Your task to perform on an android device: Do I have any events this weekend? Image 0: 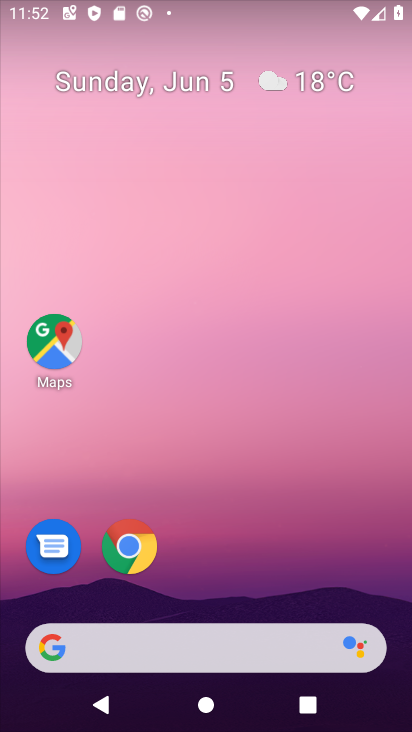
Step 0: drag from (245, 580) to (202, 89)
Your task to perform on an android device: Do I have any events this weekend? Image 1: 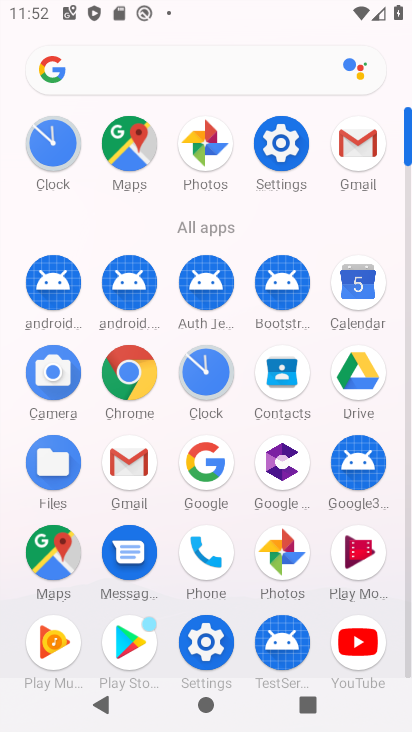
Step 1: click (356, 292)
Your task to perform on an android device: Do I have any events this weekend? Image 2: 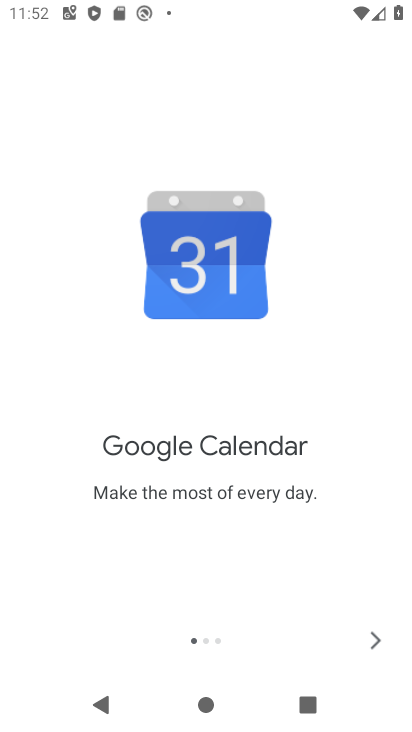
Step 2: click (373, 646)
Your task to perform on an android device: Do I have any events this weekend? Image 3: 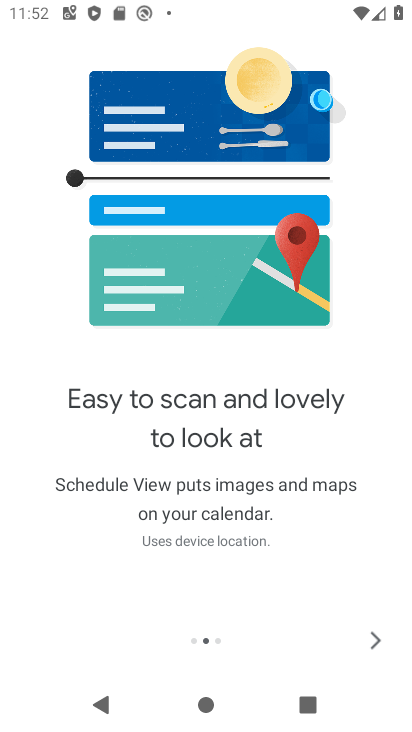
Step 3: click (373, 645)
Your task to perform on an android device: Do I have any events this weekend? Image 4: 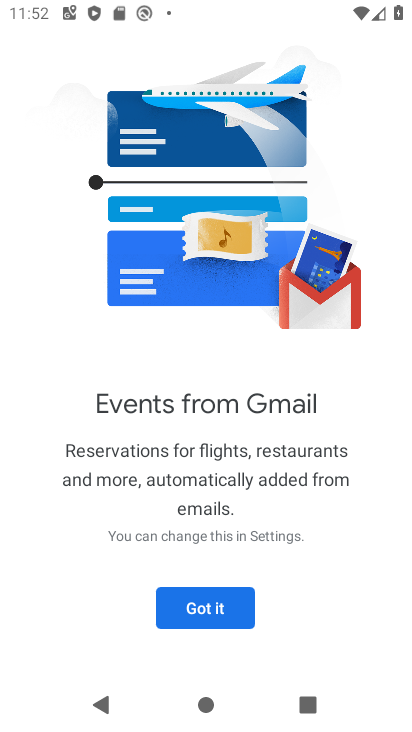
Step 4: click (187, 586)
Your task to perform on an android device: Do I have any events this weekend? Image 5: 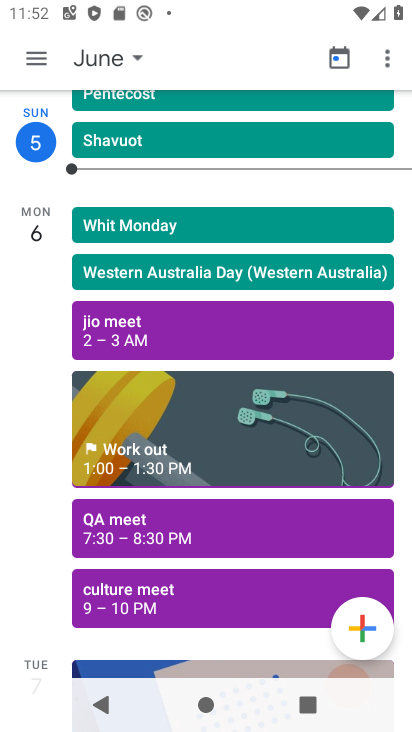
Step 5: click (37, 59)
Your task to perform on an android device: Do I have any events this weekend? Image 6: 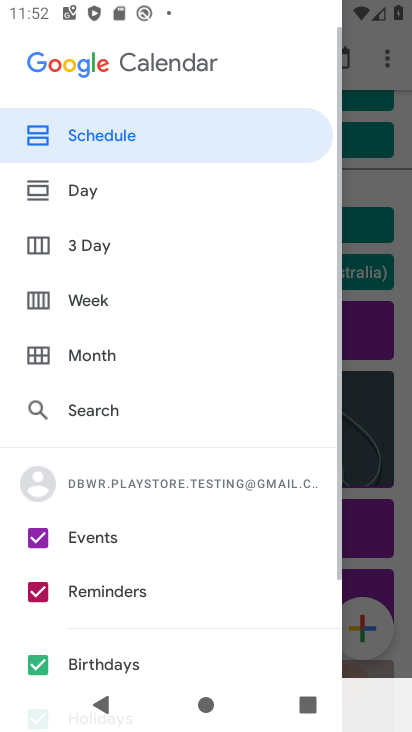
Step 6: click (381, 198)
Your task to perform on an android device: Do I have any events this weekend? Image 7: 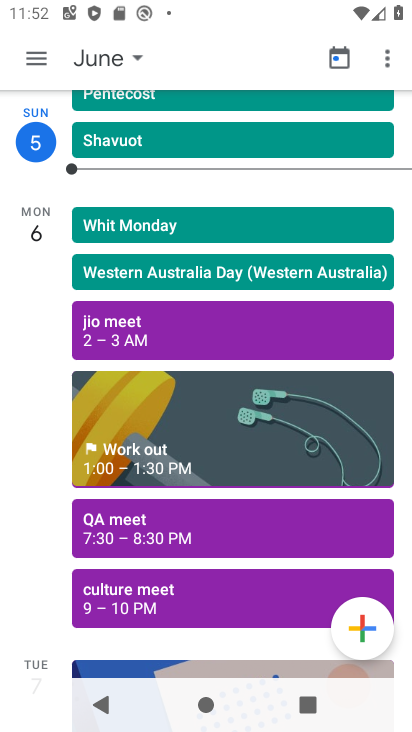
Step 7: task complete